Your task to perform on an android device: Show me productivity apps on the Play Store Image 0: 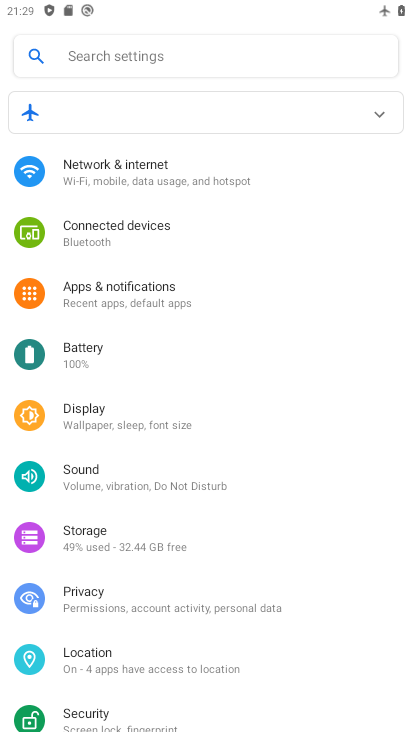
Step 0: press home button
Your task to perform on an android device: Show me productivity apps on the Play Store Image 1: 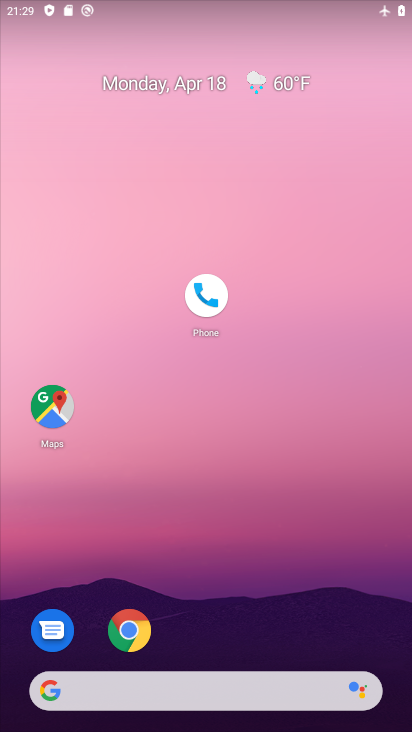
Step 1: drag from (318, 569) to (376, 164)
Your task to perform on an android device: Show me productivity apps on the Play Store Image 2: 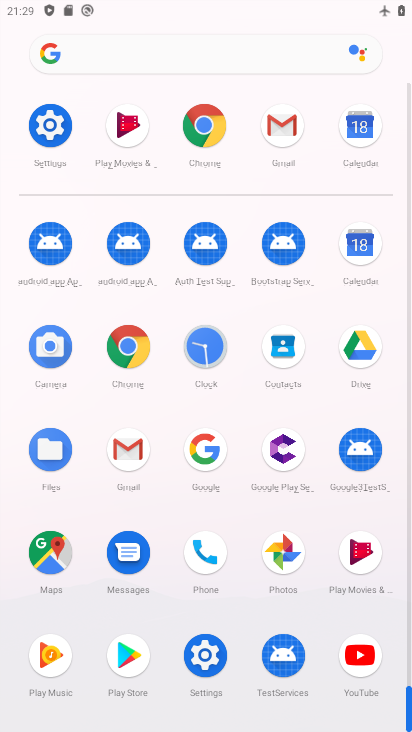
Step 2: click (125, 661)
Your task to perform on an android device: Show me productivity apps on the Play Store Image 3: 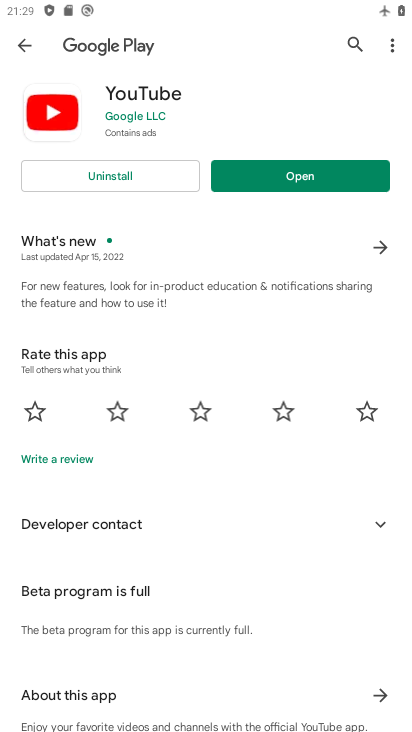
Step 3: click (31, 44)
Your task to perform on an android device: Show me productivity apps on the Play Store Image 4: 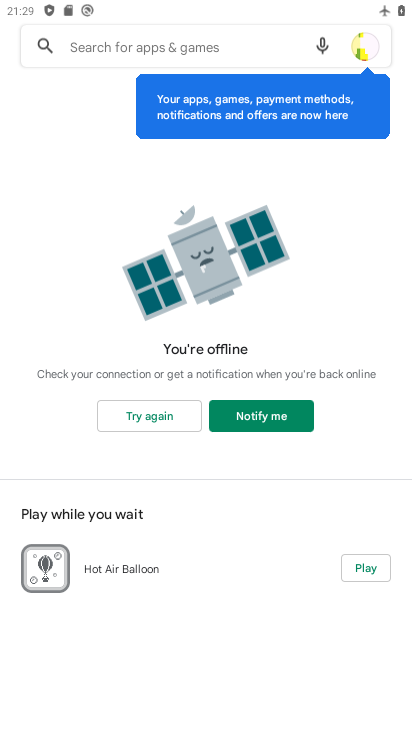
Step 4: click (369, 50)
Your task to perform on an android device: Show me productivity apps on the Play Store Image 5: 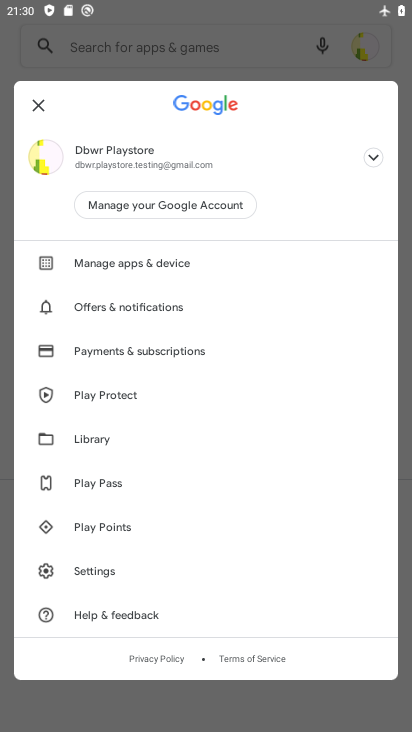
Step 5: click (175, 267)
Your task to perform on an android device: Show me productivity apps on the Play Store Image 6: 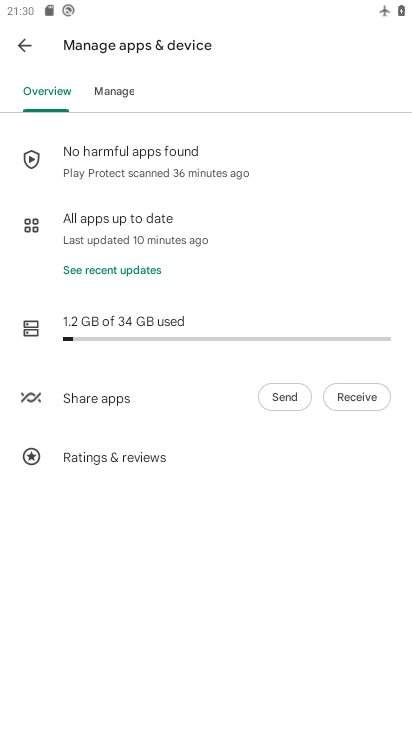
Step 6: click (137, 103)
Your task to perform on an android device: Show me productivity apps on the Play Store Image 7: 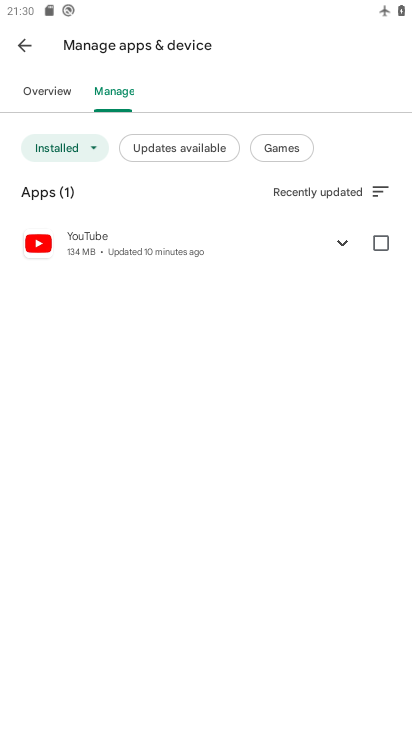
Step 7: click (26, 41)
Your task to perform on an android device: Show me productivity apps on the Play Store Image 8: 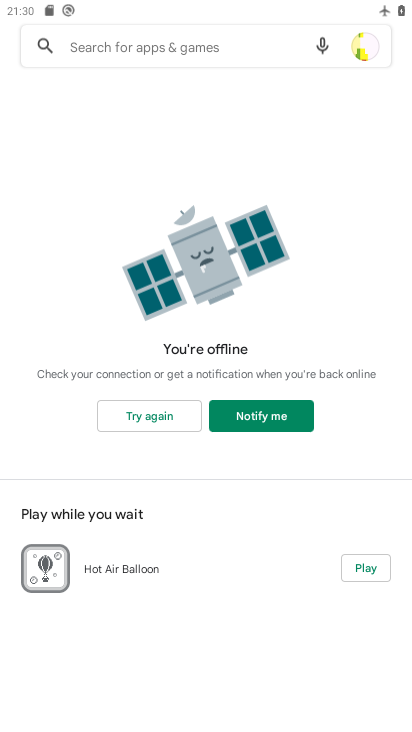
Step 8: click (358, 47)
Your task to perform on an android device: Show me productivity apps on the Play Store Image 9: 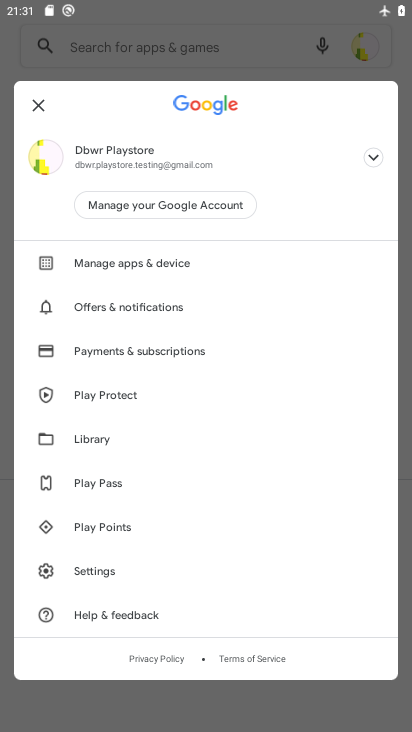
Step 9: click (126, 259)
Your task to perform on an android device: Show me productivity apps on the Play Store Image 10: 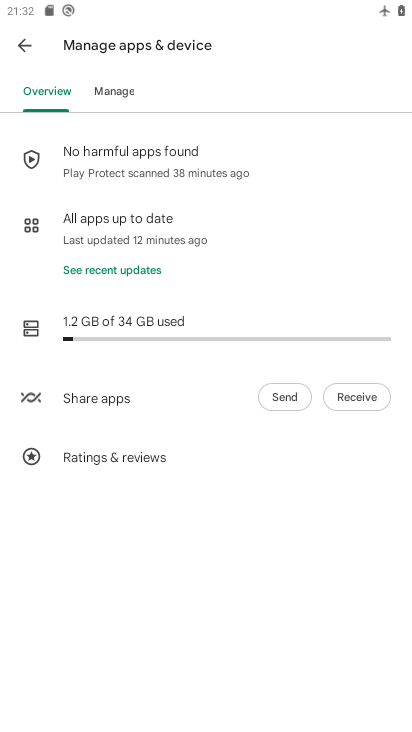
Step 10: click (128, 97)
Your task to perform on an android device: Show me productivity apps on the Play Store Image 11: 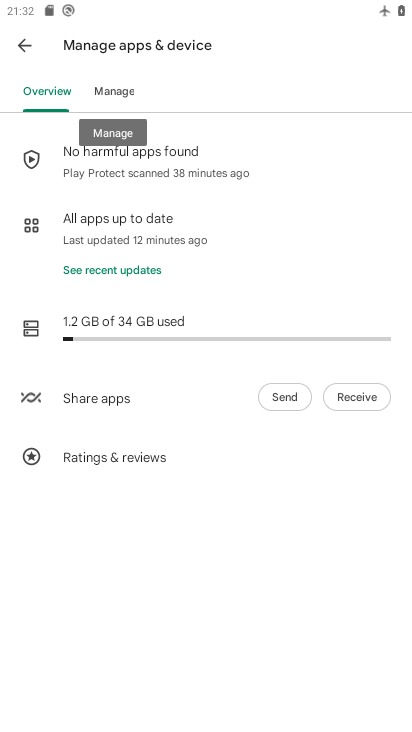
Step 11: click (111, 85)
Your task to perform on an android device: Show me productivity apps on the Play Store Image 12: 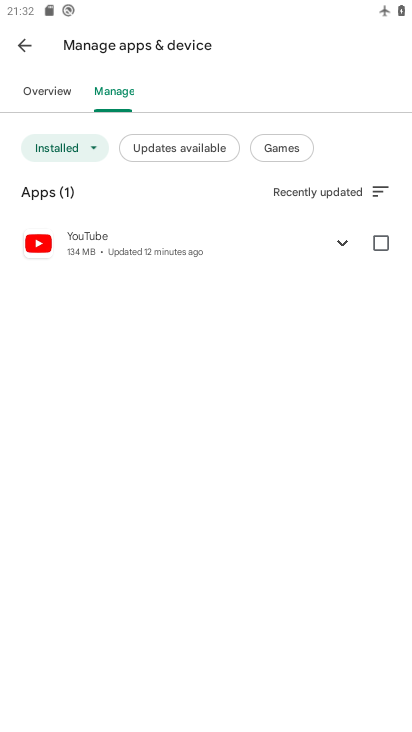
Step 12: click (91, 142)
Your task to perform on an android device: Show me productivity apps on the Play Store Image 13: 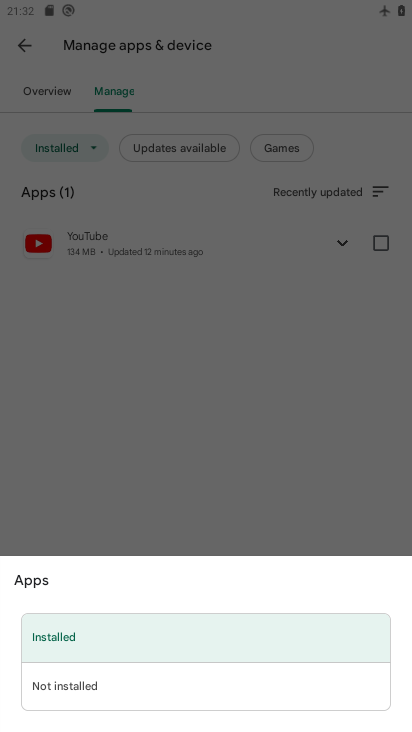
Step 13: click (127, 370)
Your task to perform on an android device: Show me productivity apps on the Play Store Image 14: 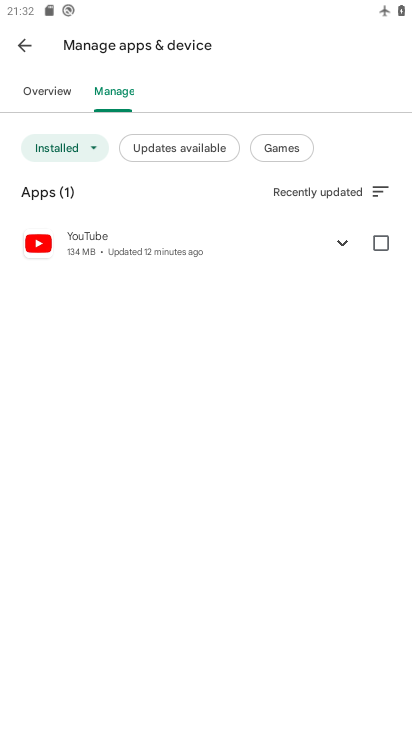
Step 14: click (64, 92)
Your task to perform on an android device: Show me productivity apps on the Play Store Image 15: 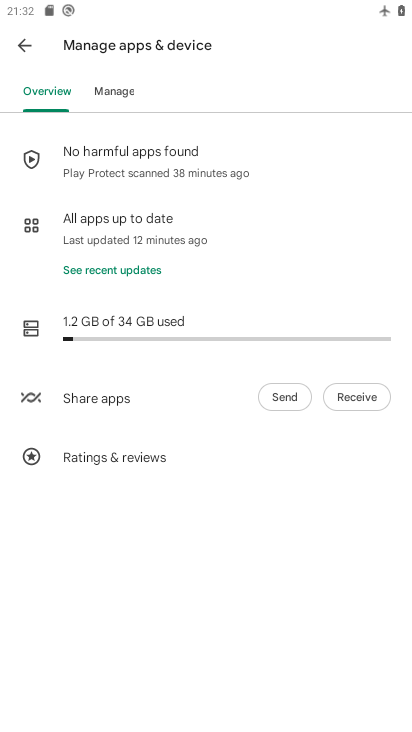
Step 15: click (94, 262)
Your task to perform on an android device: Show me productivity apps on the Play Store Image 16: 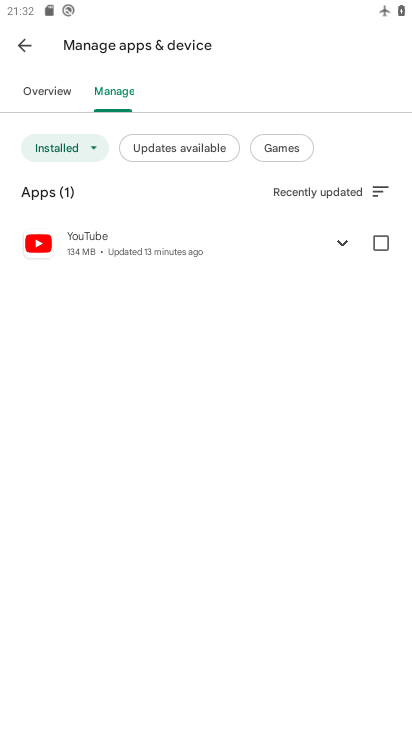
Step 16: task complete